Your task to perform on an android device: turn on notifications settings in the gmail app Image 0: 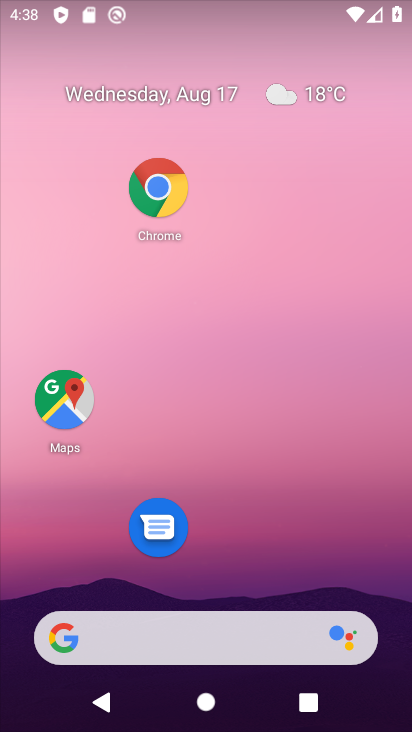
Step 0: drag from (248, 538) to (287, 67)
Your task to perform on an android device: turn on notifications settings in the gmail app Image 1: 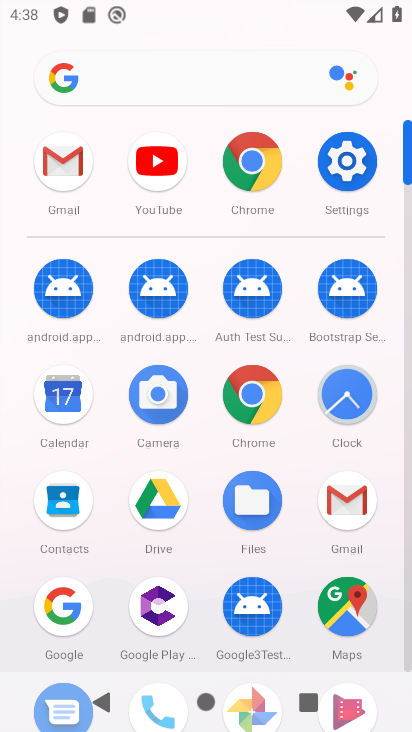
Step 1: click (346, 189)
Your task to perform on an android device: turn on notifications settings in the gmail app Image 2: 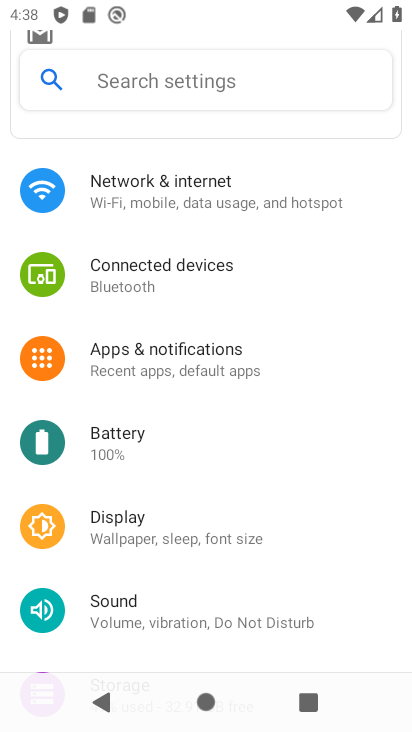
Step 2: click (139, 371)
Your task to perform on an android device: turn on notifications settings in the gmail app Image 3: 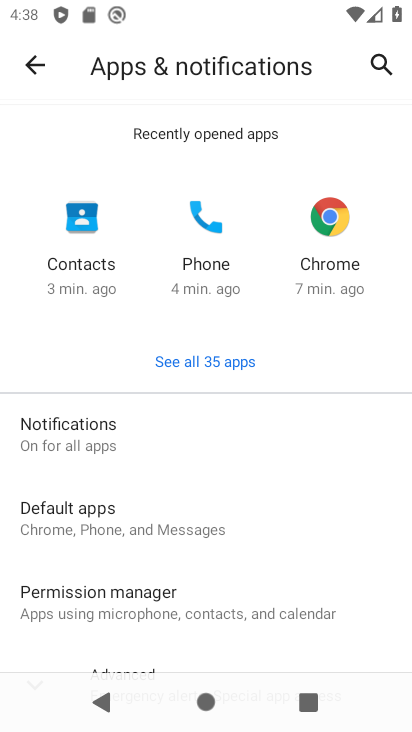
Step 3: click (177, 363)
Your task to perform on an android device: turn on notifications settings in the gmail app Image 4: 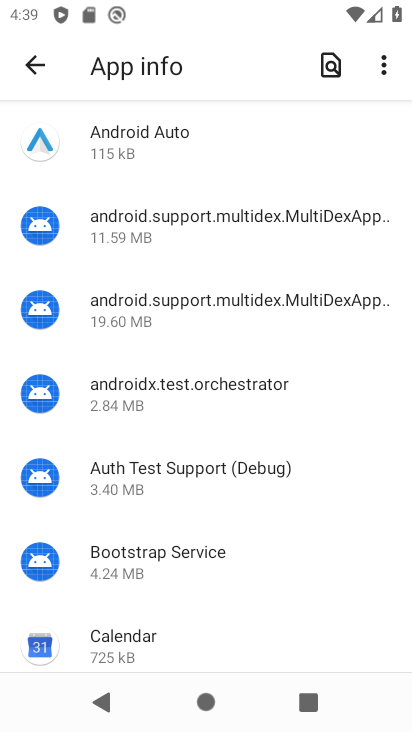
Step 4: drag from (119, 595) to (176, 24)
Your task to perform on an android device: turn on notifications settings in the gmail app Image 5: 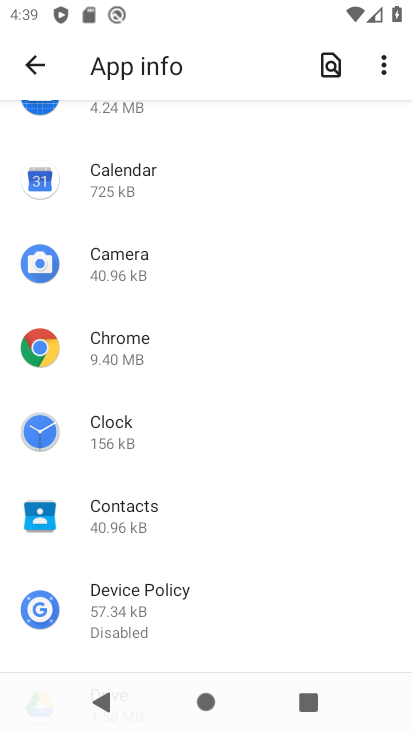
Step 5: drag from (208, 638) to (220, 103)
Your task to perform on an android device: turn on notifications settings in the gmail app Image 6: 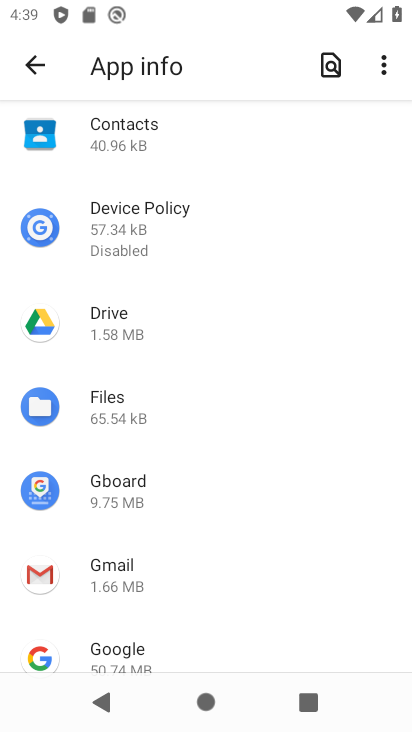
Step 6: click (195, 562)
Your task to perform on an android device: turn on notifications settings in the gmail app Image 7: 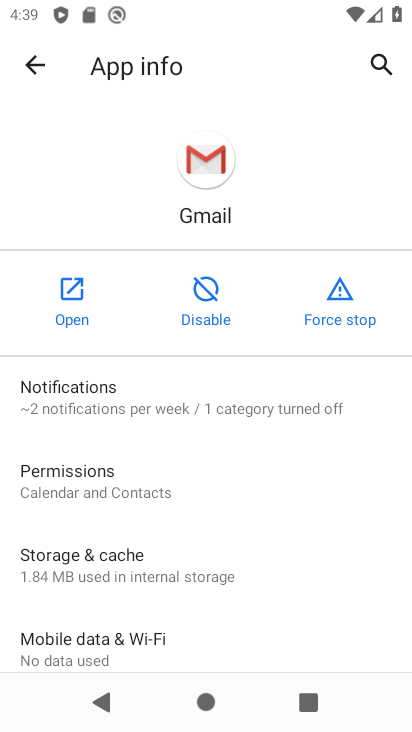
Step 7: click (86, 387)
Your task to perform on an android device: turn on notifications settings in the gmail app Image 8: 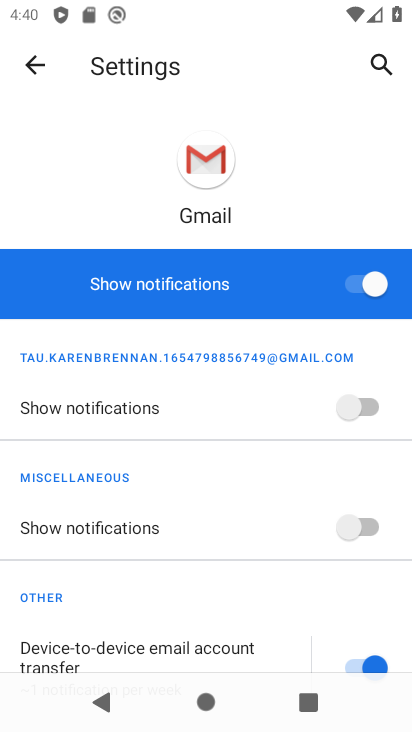
Step 8: task complete